Your task to perform on an android device: Open battery settings Image 0: 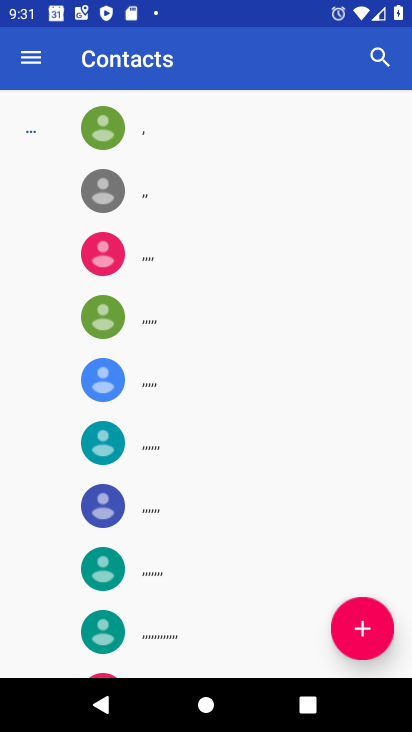
Step 0: press home button
Your task to perform on an android device: Open battery settings Image 1: 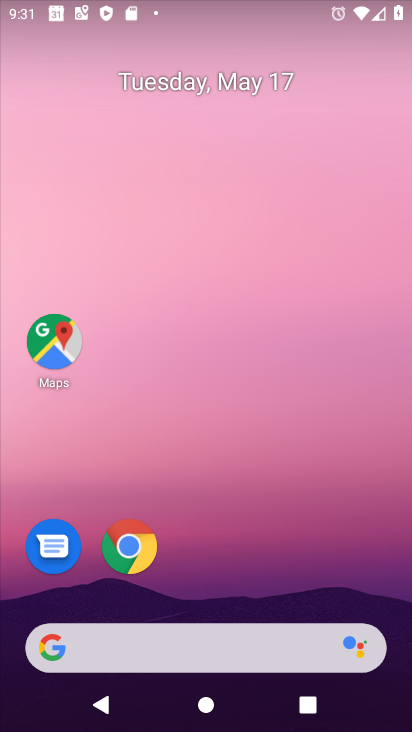
Step 1: drag from (230, 591) to (190, 53)
Your task to perform on an android device: Open battery settings Image 2: 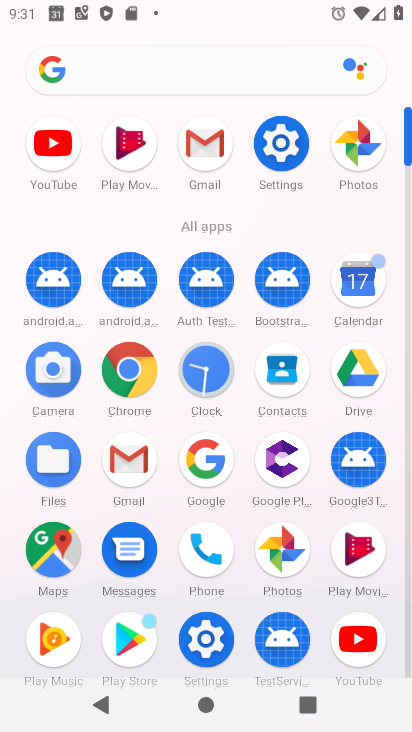
Step 2: click (281, 148)
Your task to perform on an android device: Open battery settings Image 3: 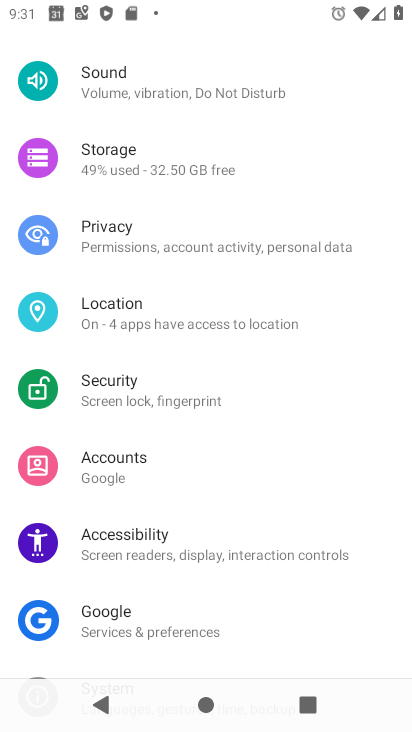
Step 3: drag from (196, 170) to (173, 300)
Your task to perform on an android device: Open battery settings Image 4: 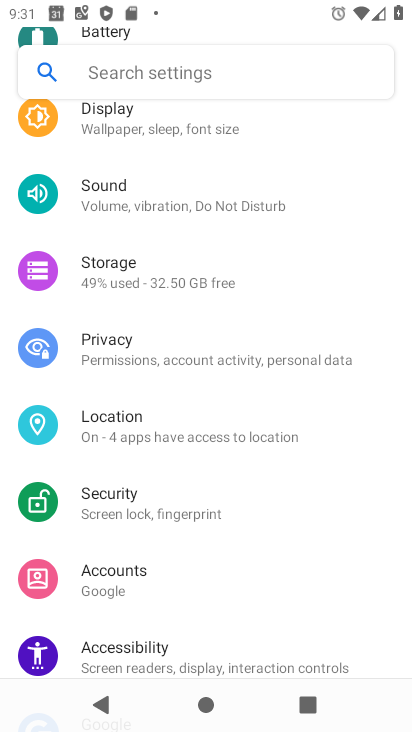
Step 4: drag from (226, 175) to (236, 335)
Your task to perform on an android device: Open battery settings Image 5: 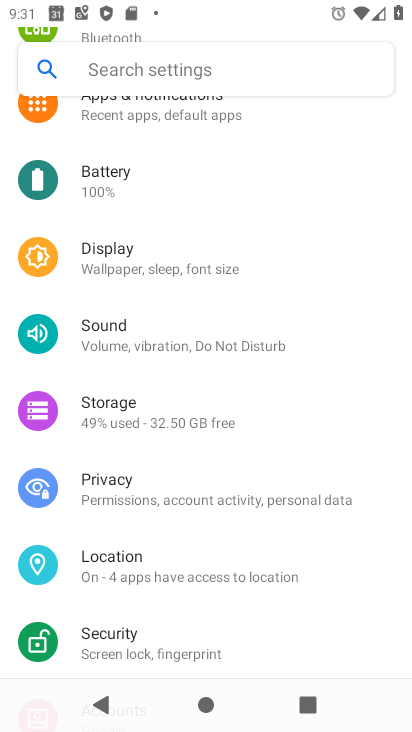
Step 5: click (184, 181)
Your task to perform on an android device: Open battery settings Image 6: 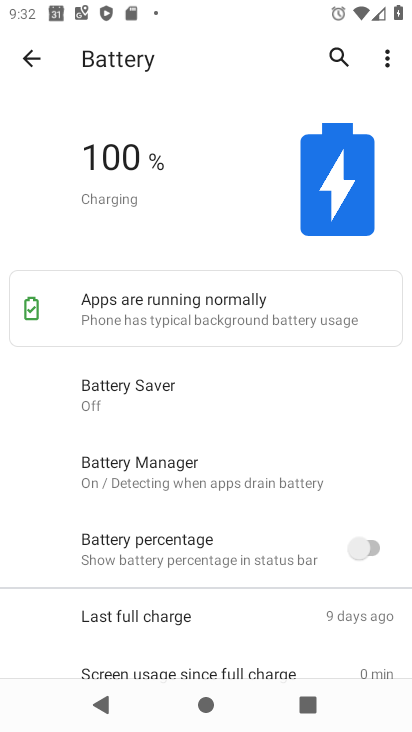
Step 6: task complete